Your task to perform on an android device: toggle javascript in the chrome app Image 0: 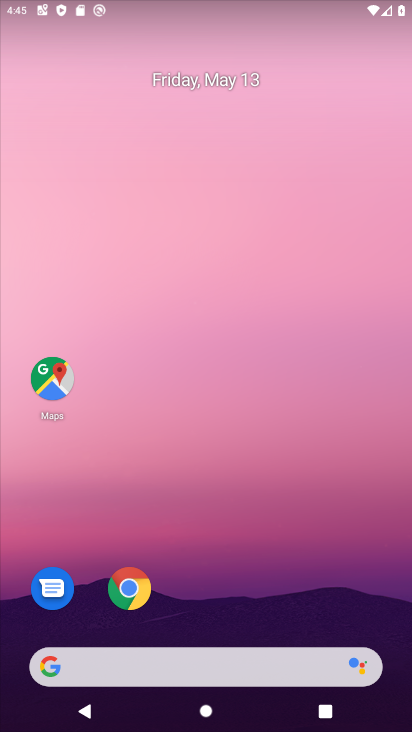
Step 0: click (129, 592)
Your task to perform on an android device: toggle javascript in the chrome app Image 1: 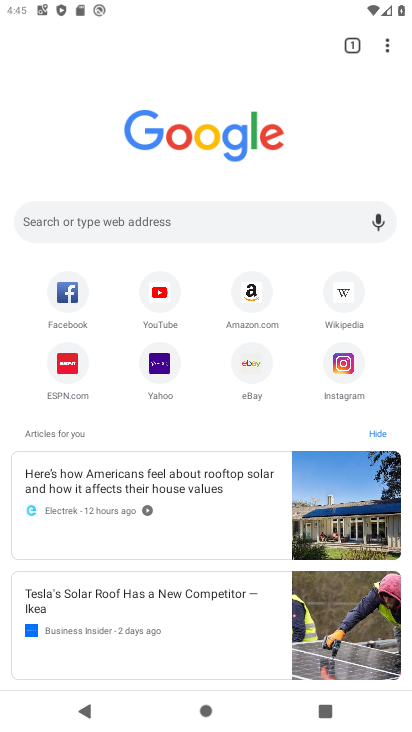
Step 1: click (396, 41)
Your task to perform on an android device: toggle javascript in the chrome app Image 2: 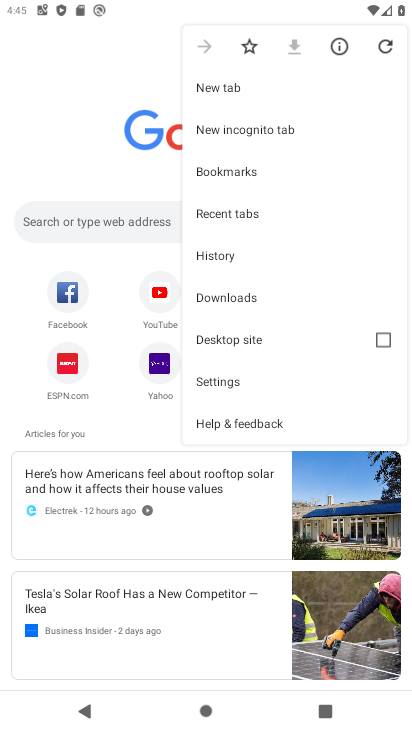
Step 2: click (238, 371)
Your task to perform on an android device: toggle javascript in the chrome app Image 3: 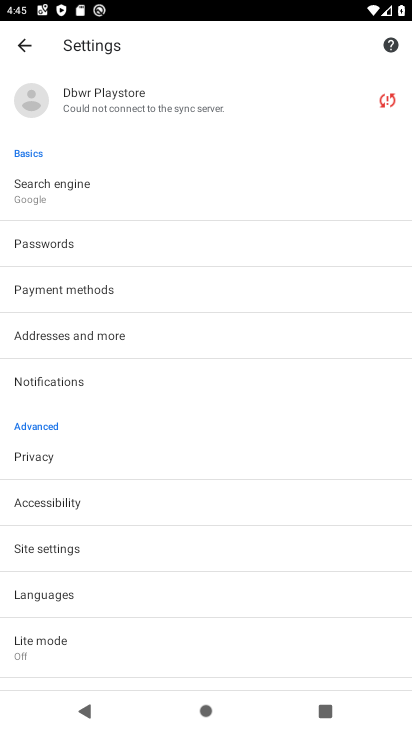
Step 3: click (66, 564)
Your task to perform on an android device: toggle javascript in the chrome app Image 4: 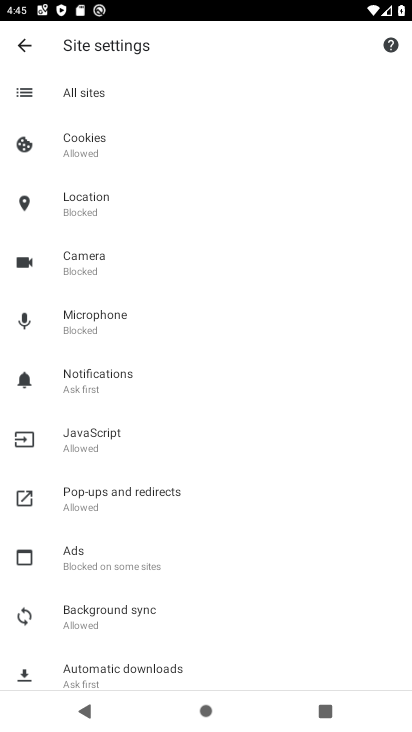
Step 4: click (115, 437)
Your task to perform on an android device: toggle javascript in the chrome app Image 5: 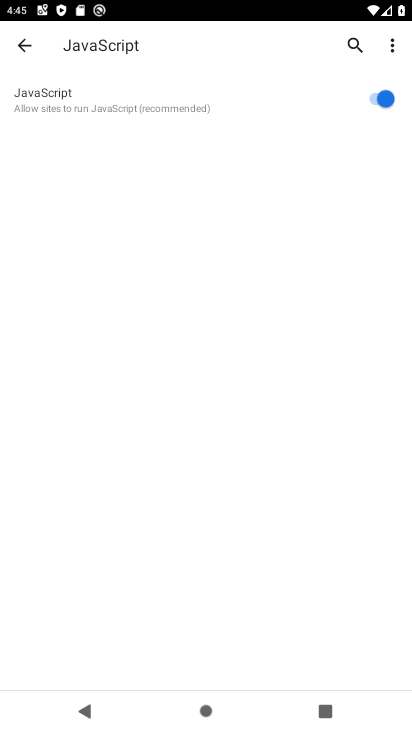
Step 5: click (386, 112)
Your task to perform on an android device: toggle javascript in the chrome app Image 6: 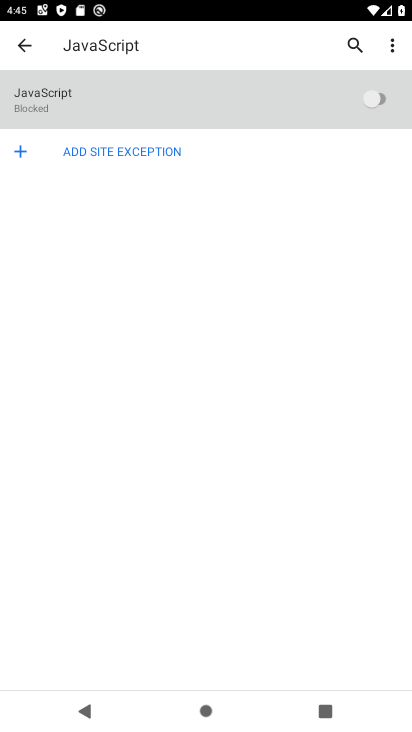
Step 6: click (386, 112)
Your task to perform on an android device: toggle javascript in the chrome app Image 7: 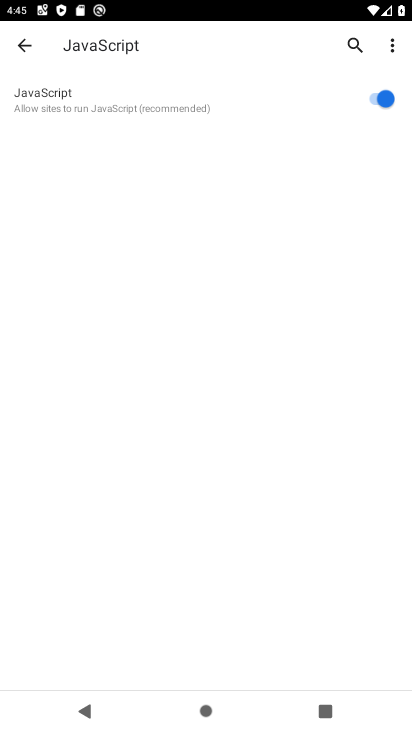
Step 7: task complete